Your task to perform on an android device: Open Chrome and go to settings Image 0: 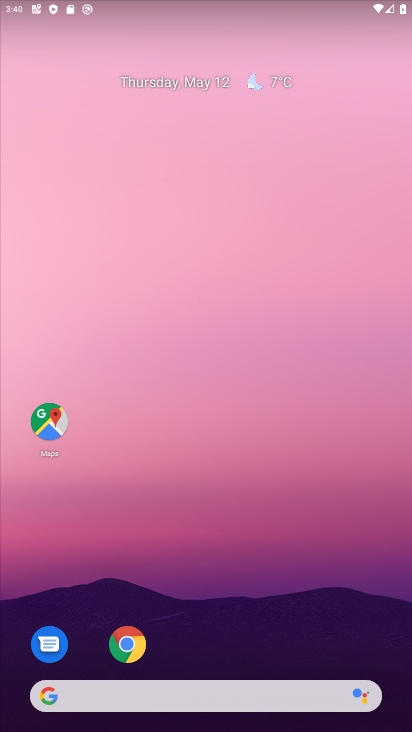
Step 0: click (128, 640)
Your task to perform on an android device: Open Chrome and go to settings Image 1: 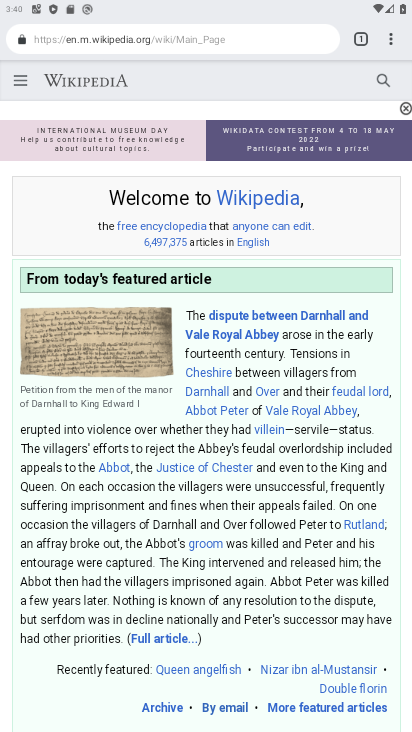
Step 1: click (387, 33)
Your task to perform on an android device: Open Chrome and go to settings Image 2: 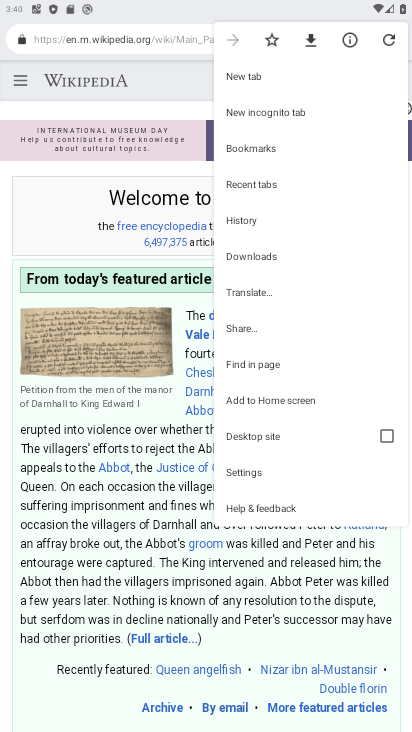
Step 2: click (270, 472)
Your task to perform on an android device: Open Chrome and go to settings Image 3: 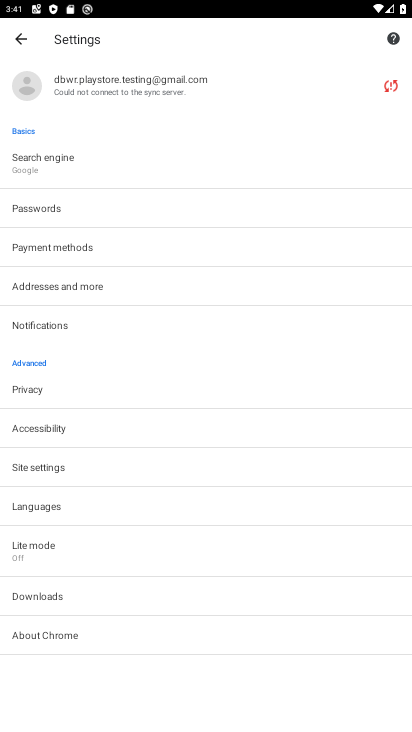
Step 3: task complete